Your task to perform on an android device: Open the Play Movies app and select the watchlist tab. Image 0: 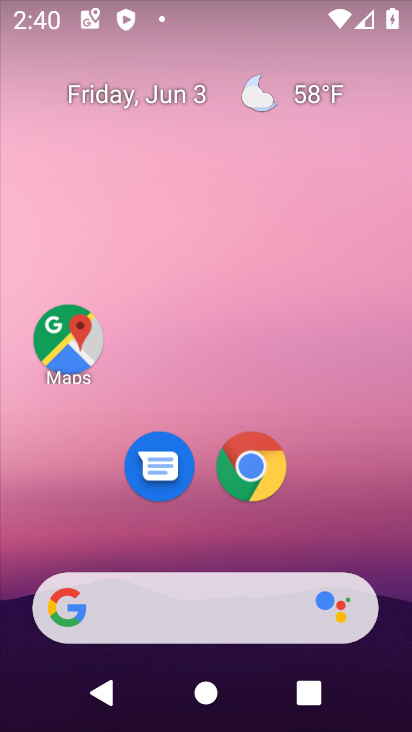
Step 0: drag from (378, 538) to (352, 399)
Your task to perform on an android device: Open the Play Movies app and select the watchlist tab. Image 1: 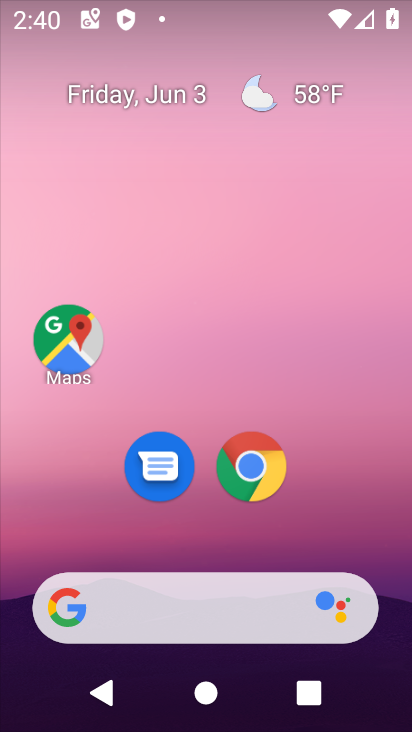
Step 1: drag from (380, 496) to (348, 159)
Your task to perform on an android device: Open the Play Movies app and select the watchlist tab. Image 2: 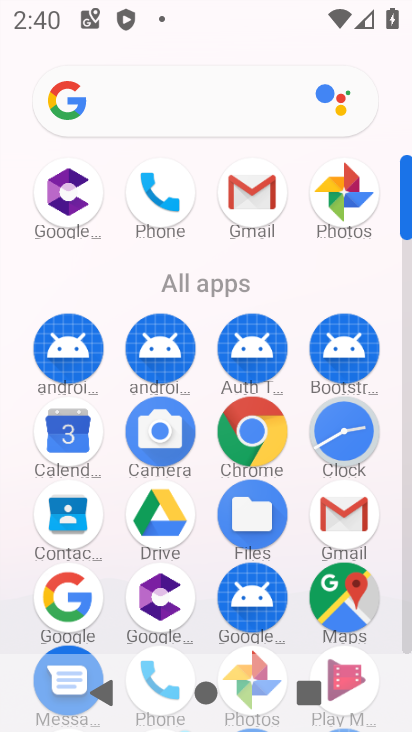
Step 2: click (402, 563)
Your task to perform on an android device: Open the Play Movies app and select the watchlist tab. Image 3: 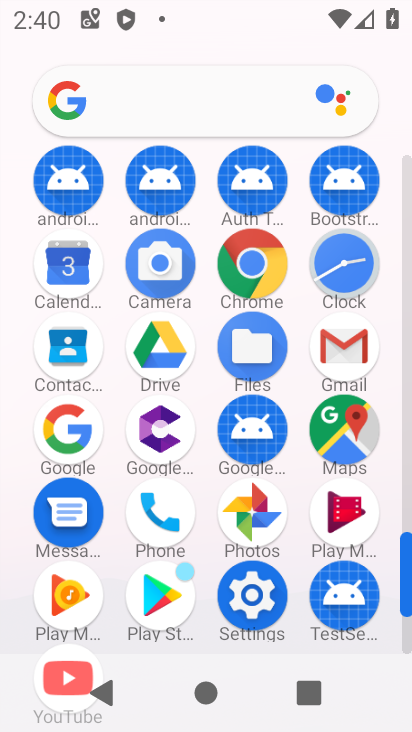
Step 3: click (336, 514)
Your task to perform on an android device: Open the Play Movies app and select the watchlist tab. Image 4: 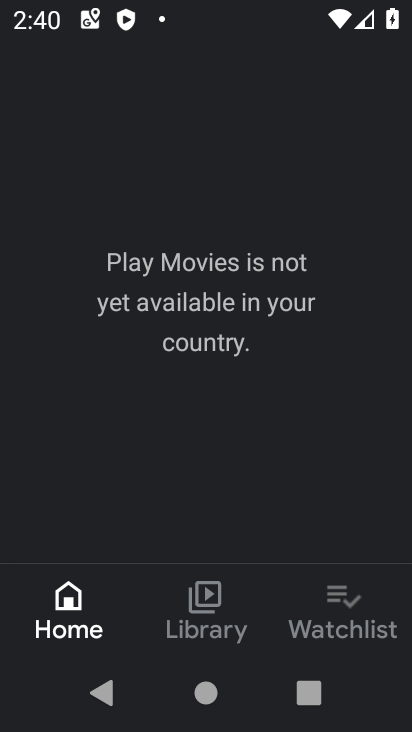
Step 4: click (360, 615)
Your task to perform on an android device: Open the Play Movies app and select the watchlist tab. Image 5: 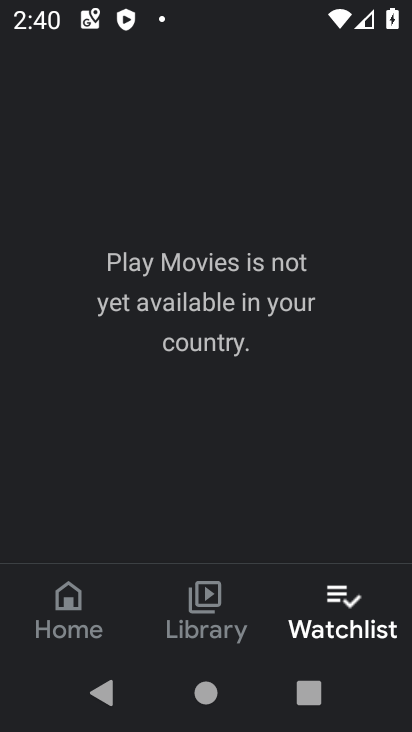
Step 5: task complete